Your task to perform on an android device: delete location history Image 0: 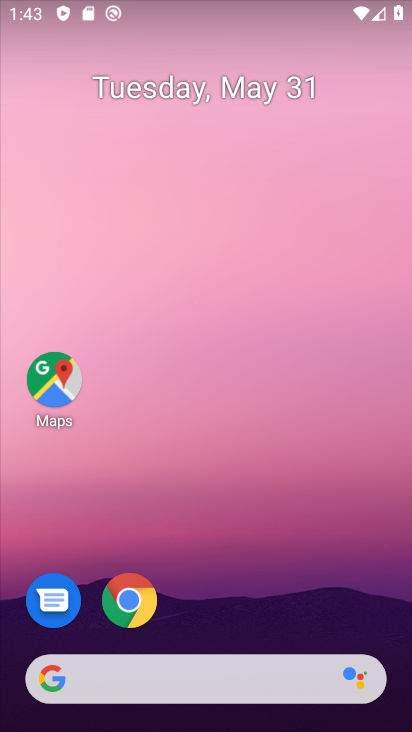
Step 0: click (52, 374)
Your task to perform on an android device: delete location history Image 1: 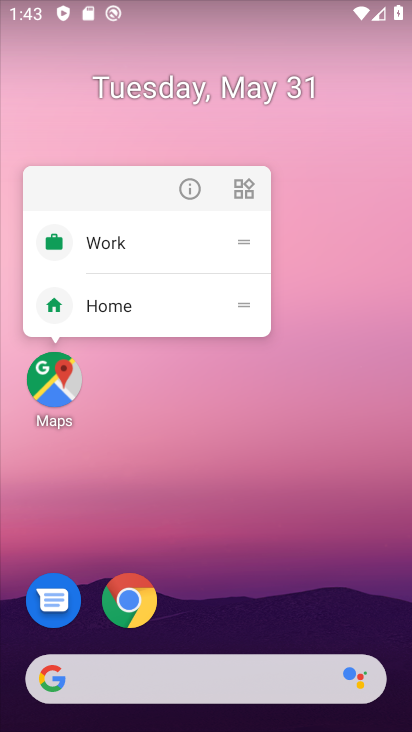
Step 1: click (52, 374)
Your task to perform on an android device: delete location history Image 2: 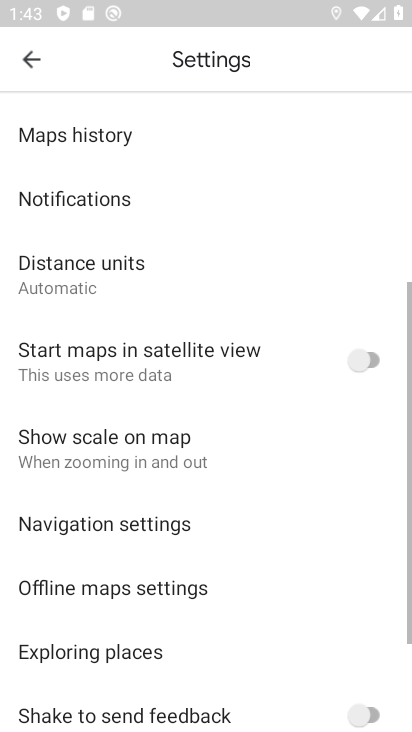
Step 2: click (33, 59)
Your task to perform on an android device: delete location history Image 3: 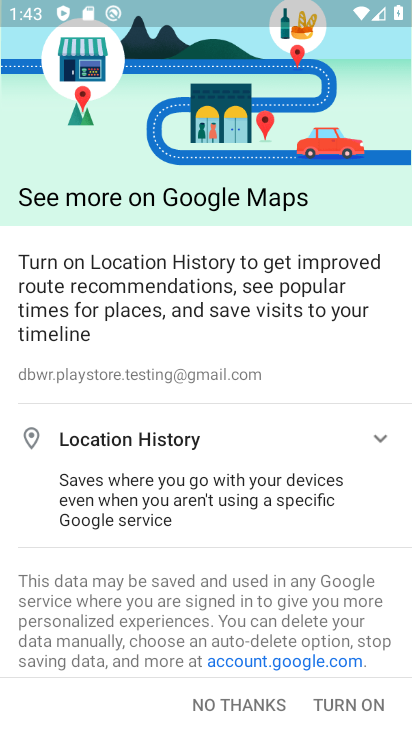
Step 3: click (351, 703)
Your task to perform on an android device: delete location history Image 4: 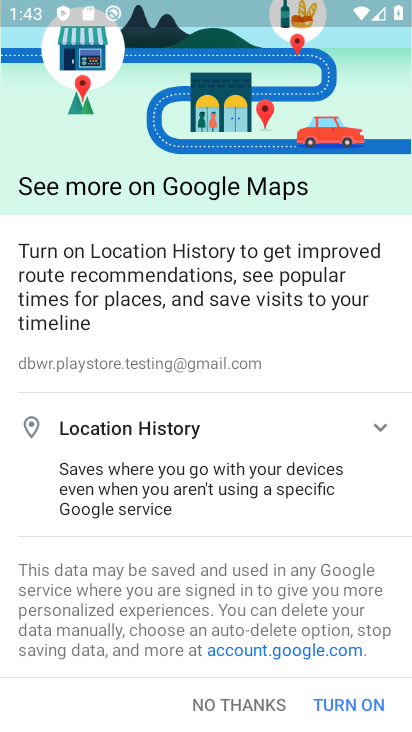
Step 4: click (351, 703)
Your task to perform on an android device: delete location history Image 5: 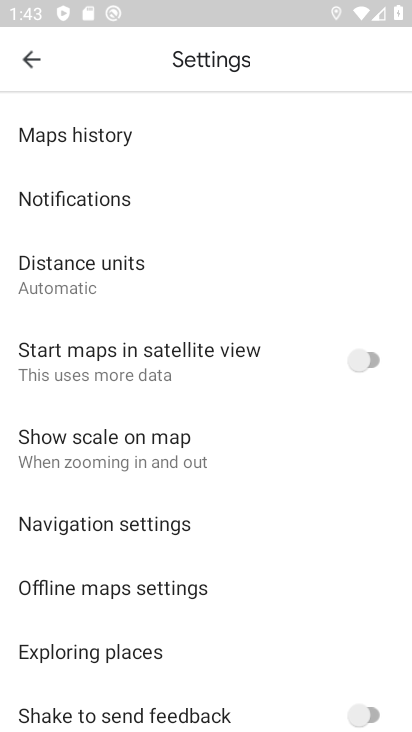
Step 5: click (36, 73)
Your task to perform on an android device: delete location history Image 6: 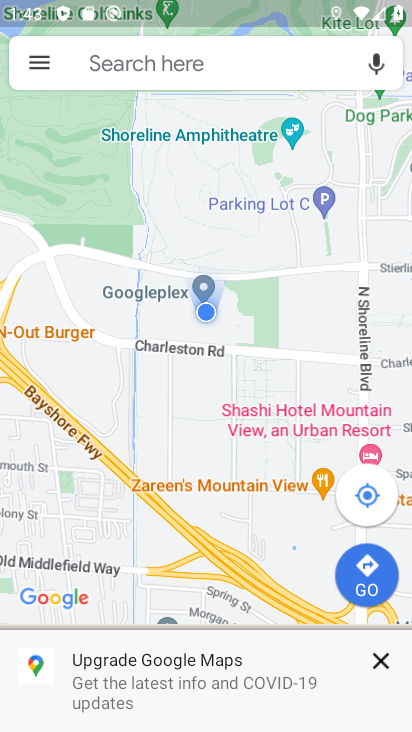
Step 6: click (38, 61)
Your task to perform on an android device: delete location history Image 7: 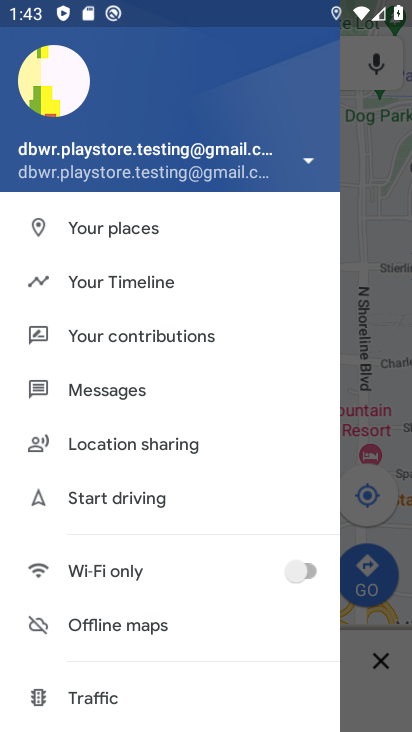
Step 7: click (179, 273)
Your task to perform on an android device: delete location history Image 8: 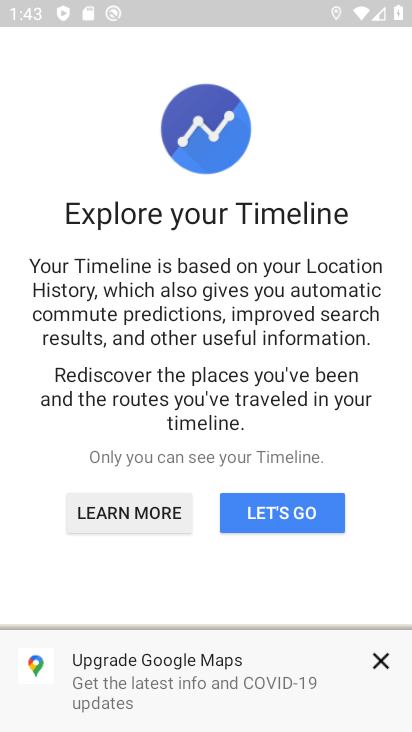
Step 8: click (287, 510)
Your task to perform on an android device: delete location history Image 9: 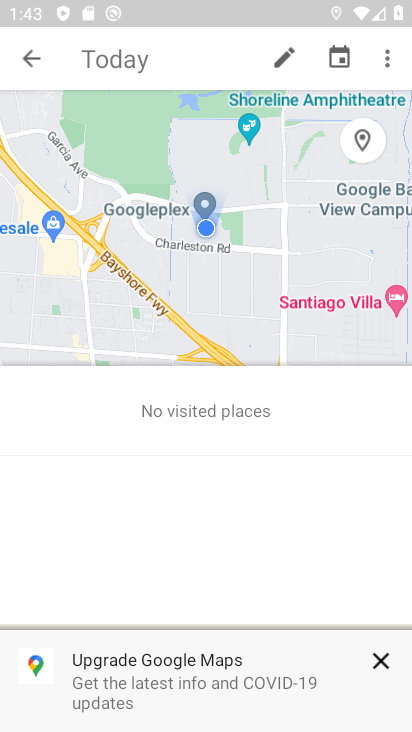
Step 9: click (385, 60)
Your task to perform on an android device: delete location history Image 10: 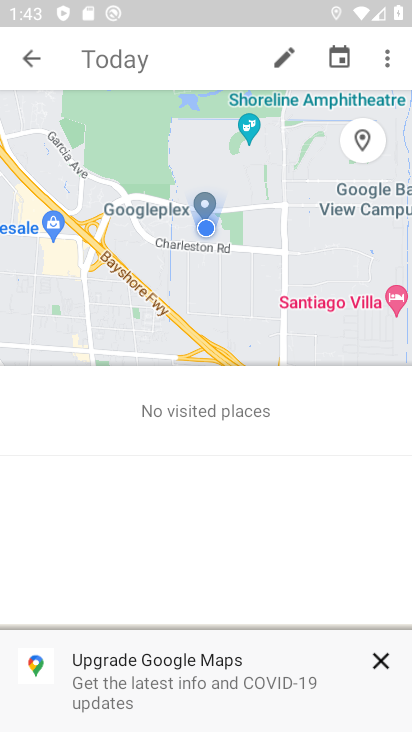
Step 10: click (391, 55)
Your task to perform on an android device: delete location history Image 11: 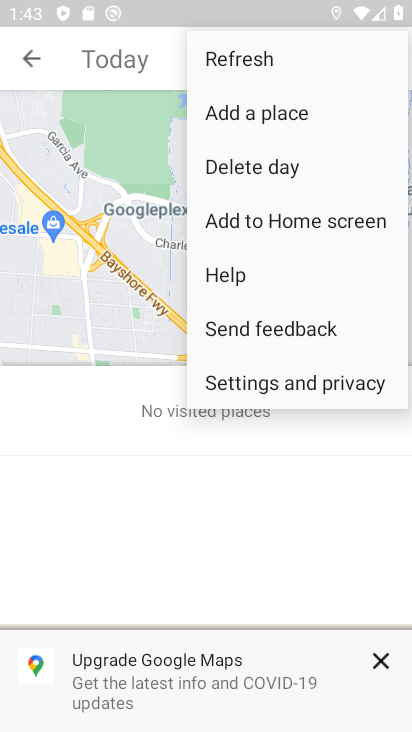
Step 11: click (326, 390)
Your task to perform on an android device: delete location history Image 12: 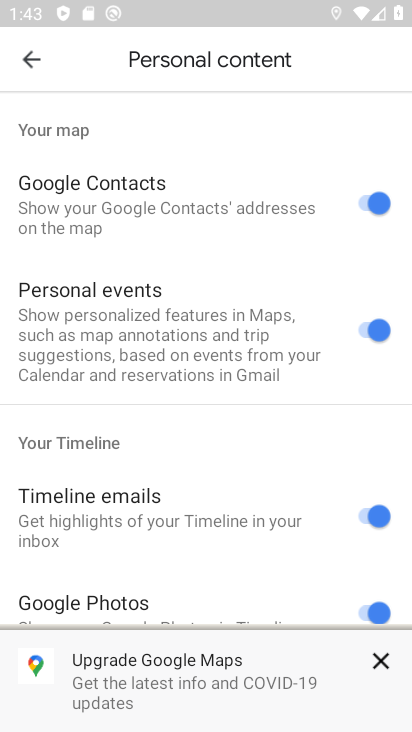
Step 12: drag from (227, 595) to (213, 71)
Your task to perform on an android device: delete location history Image 13: 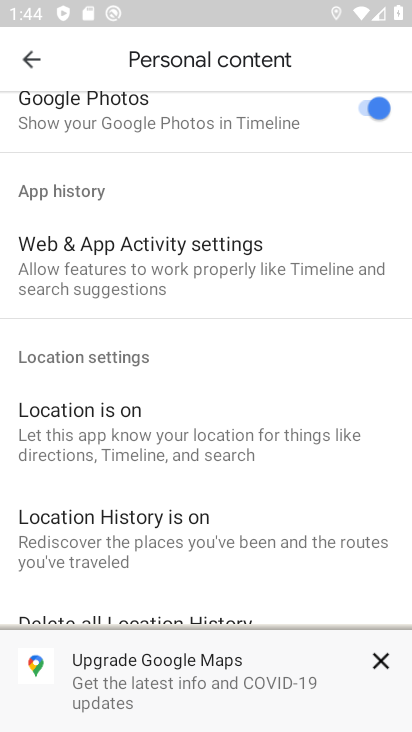
Step 13: drag from (227, 593) to (250, 74)
Your task to perform on an android device: delete location history Image 14: 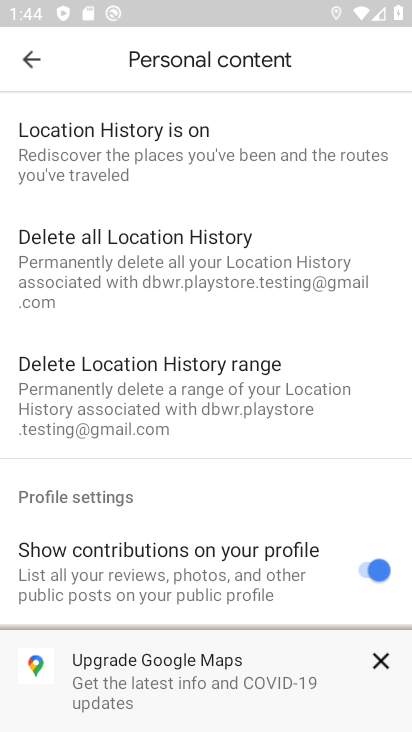
Step 14: click (223, 252)
Your task to perform on an android device: delete location history Image 15: 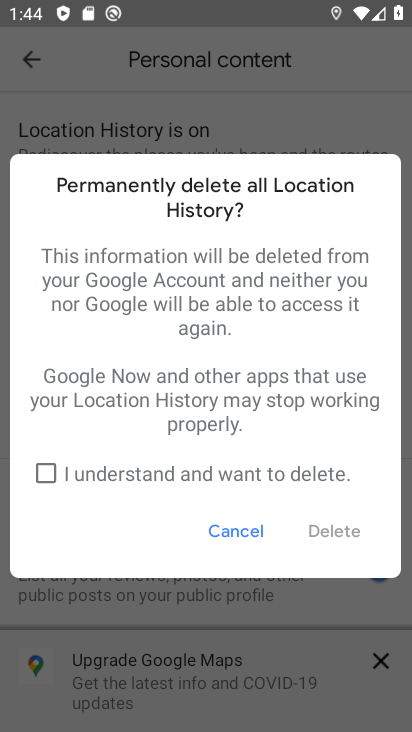
Step 15: click (50, 469)
Your task to perform on an android device: delete location history Image 16: 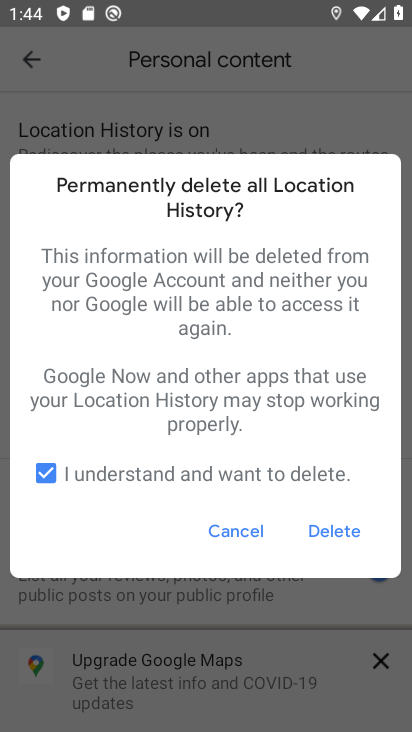
Step 16: click (338, 532)
Your task to perform on an android device: delete location history Image 17: 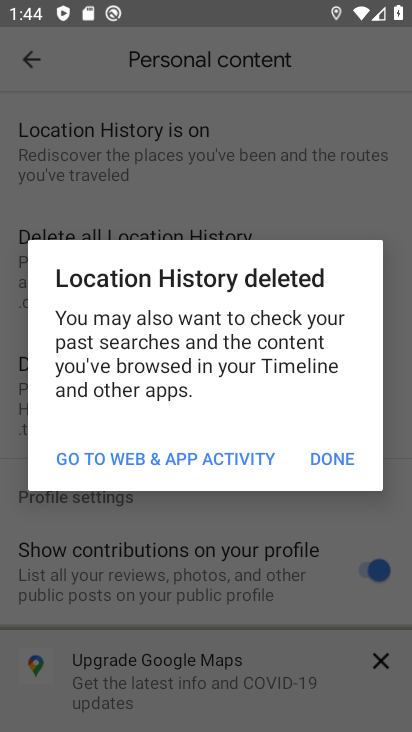
Step 17: click (333, 459)
Your task to perform on an android device: delete location history Image 18: 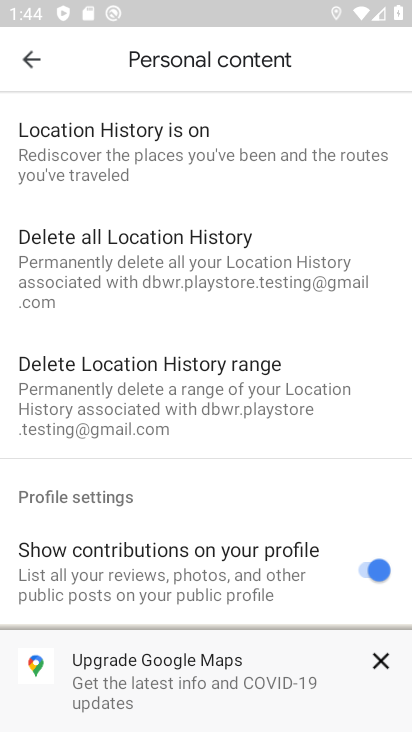
Step 18: task complete